Your task to perform on an android device: open chrome privacy settings Image 0: 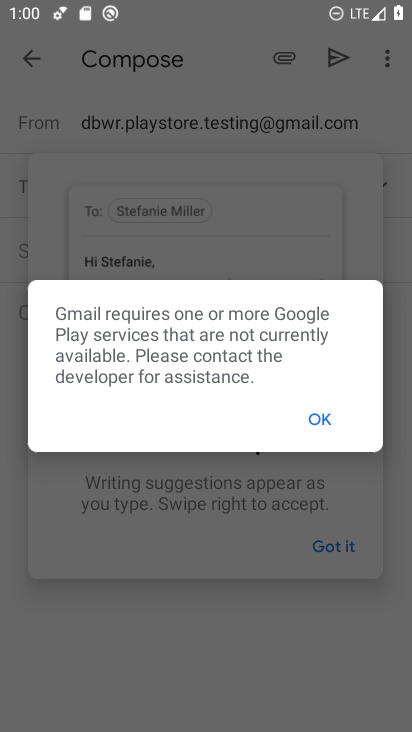
Step 0: press home button
Your task to perform on an android device: open chrome privacy settings Image 1: 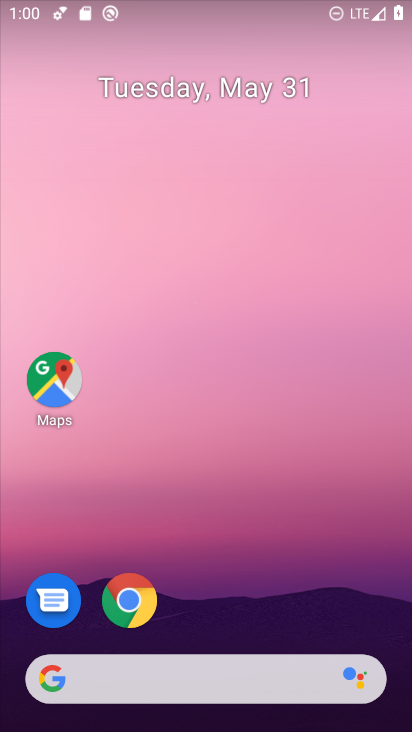
Step 1: drag from (216, 721) to (172, 82)
Your task to perform on an android device: open chrome privacy settings Image 2: 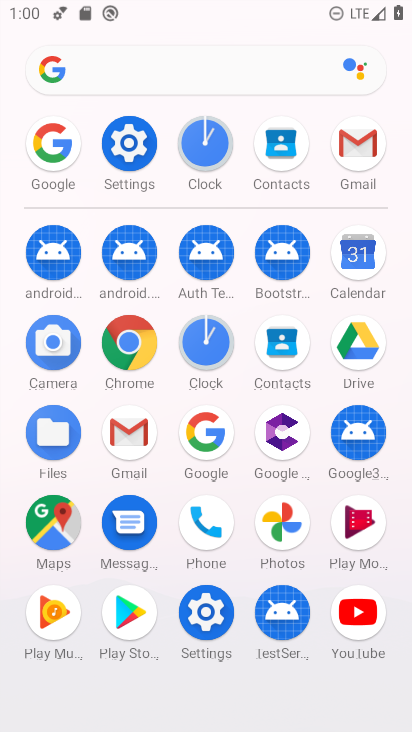
Step 2: click (131, 342)
Your task to perform on an android device: open chrome privacy settings Image 3: 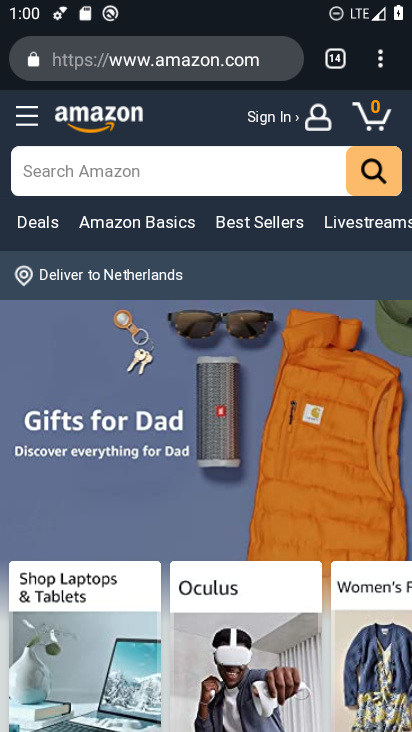
Step 3: click (383, 67)
Your task to perform on an android device: open chrome privacy settings Image 4: 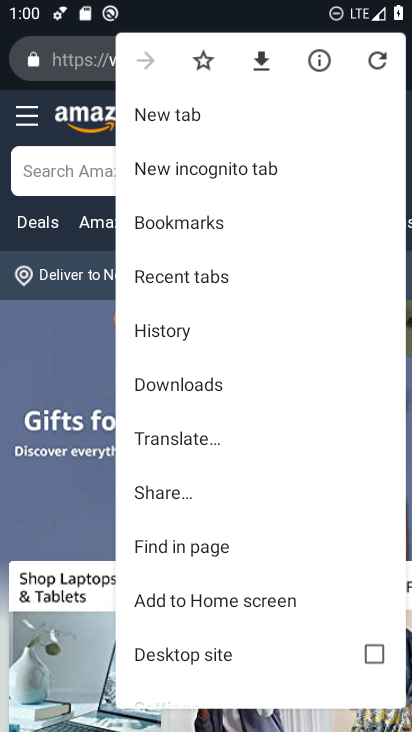
Step 4: drag from (196, 664) to (186, 206)
Your task to perform on an android device: open chrome privacy settings Image 5: 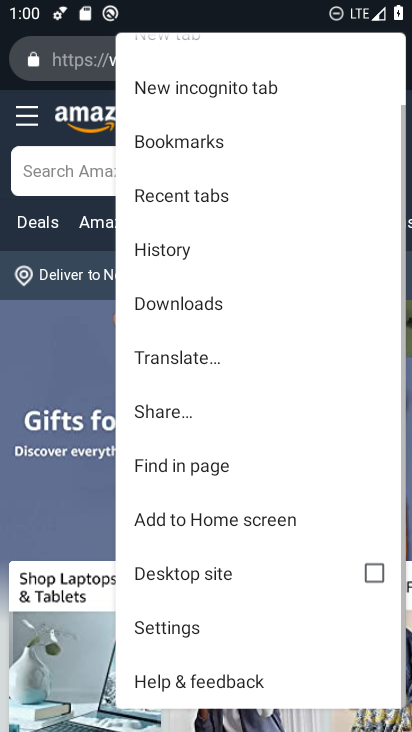
Step 5: click (191, 623)
Your task to perform on an android device: open chrome privacy settings Image 6: 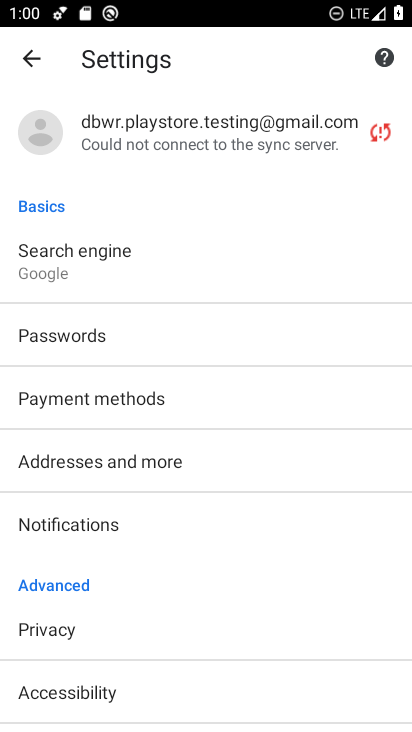
Step 6: click (80, 628)
Your task to perform on an android device: open chrome privacy settings Image 7: 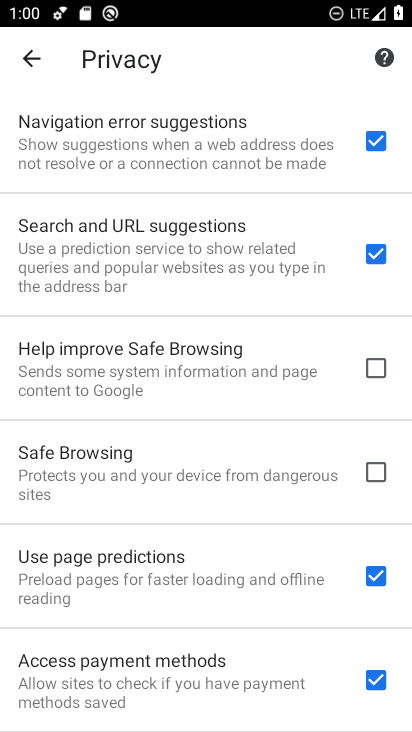
Step 7: task complete